Your task to perform on an android device: turn on airplane mode Image 0: 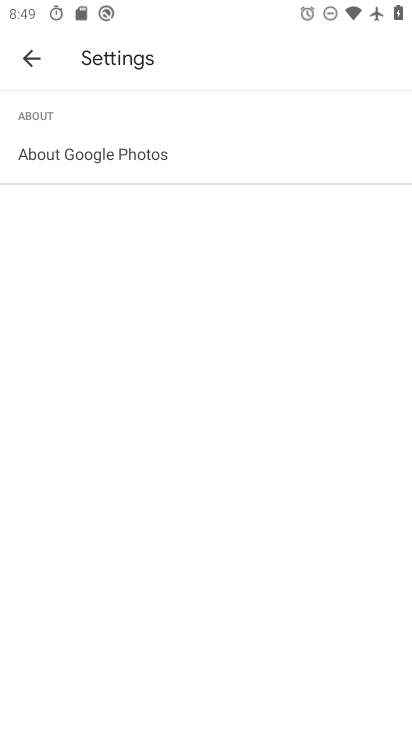
Step 0: press home button
Your task to perform on an android device: turn on airplane mode Image 1: 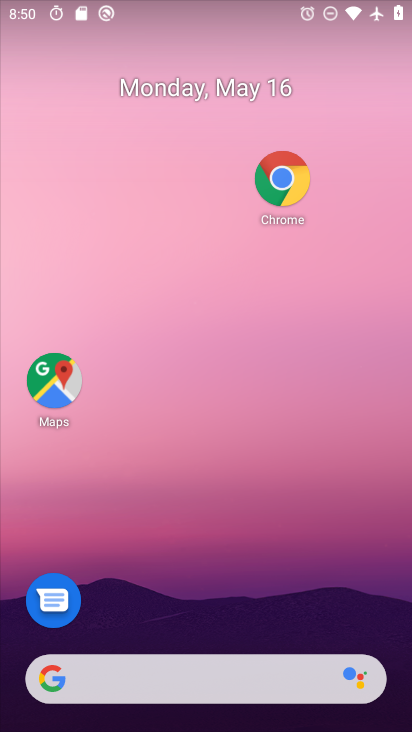
Step 1: drag from (178, 671) to (274, 146)
Your task to perform on an android device: turn on airplane mode Image 2: 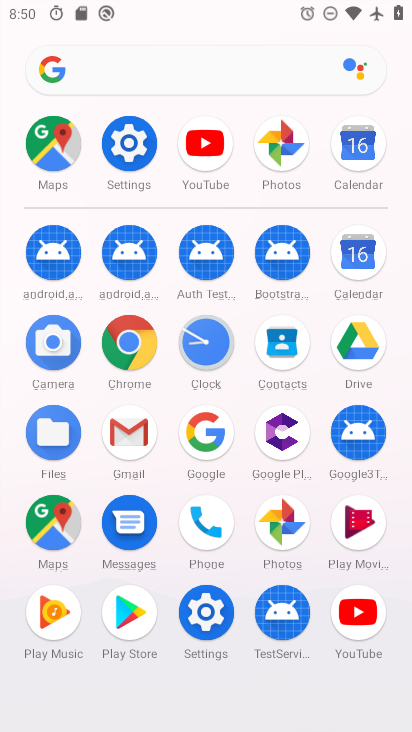
Step 2: click (136, 141)
Your task to perform on an android device: turn on airplane mode Image 3: 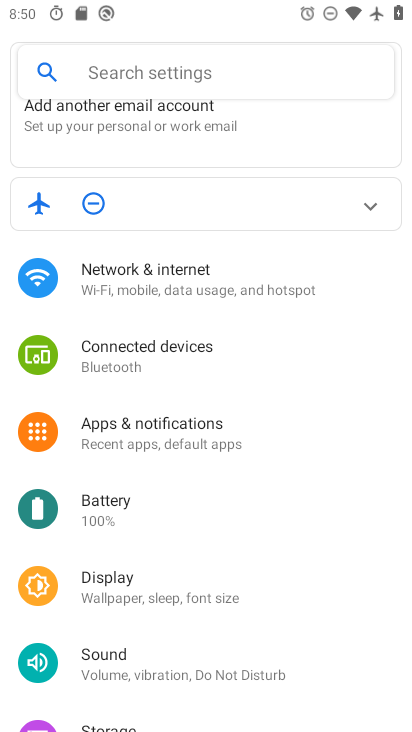
Step 3: click (196, 275)
Your task to perform on an android device: turn on airplane mode Image 4: 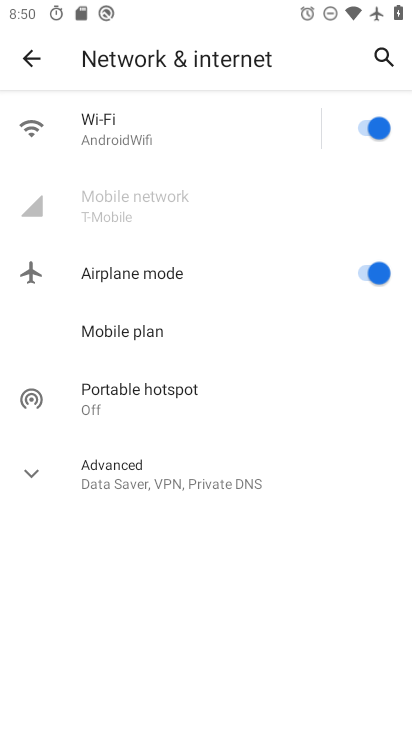
Step 4: task complete